Your task to perform on an android device: Is it going to rain this weekend? Image 0: 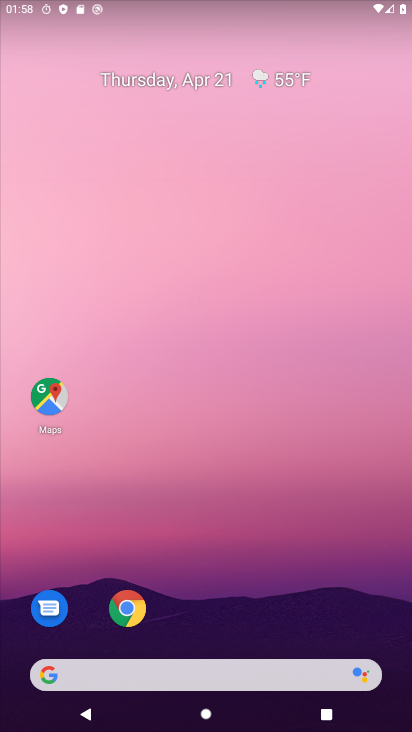
Step 0: click (145, 610)
Your task to perform on an android device: Is it going to rain this weekend? Image 1: 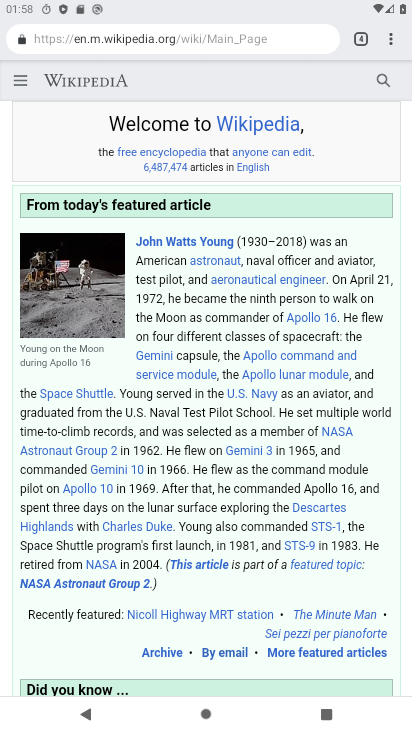
Step 1: click (364, 40)
Your task to perform on an android device: Is it going to rain this weekend? Image 2: 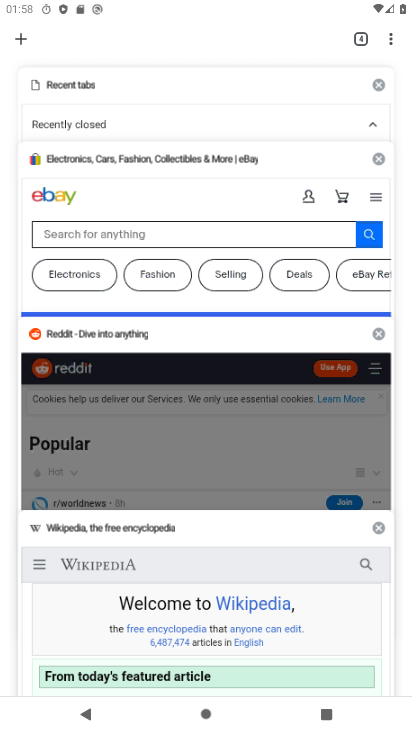
Step 2: click (20, 36)
Your task to perform on an android device: Is it going to rain this weekend? Image 3: 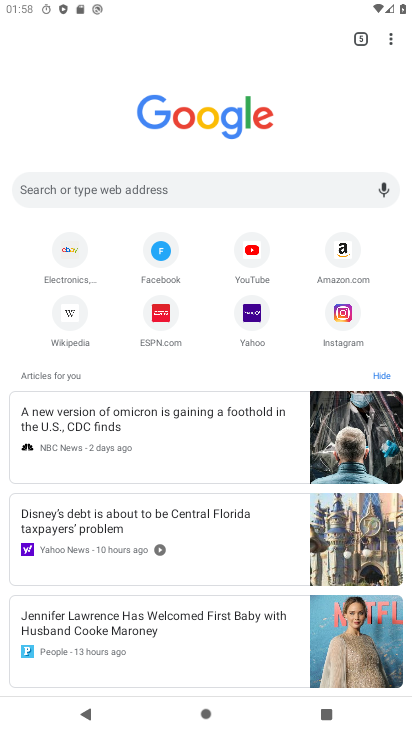
Step 3: click (102, 192)
Your task to perform on an android device: Is it going to rain this weekend? Image 4: 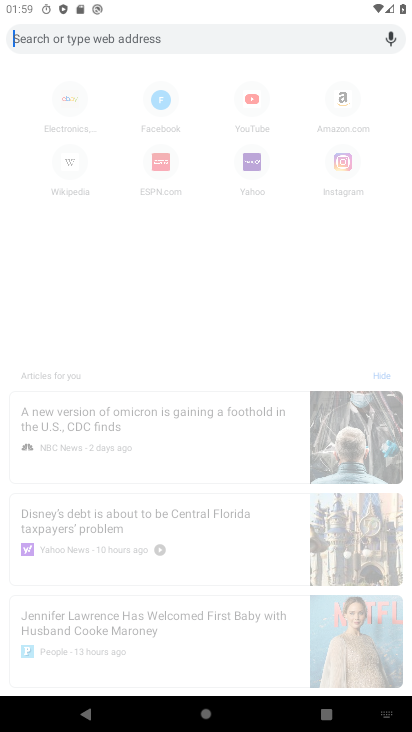
Step 4: type "is it going to rain this weekend"
Your task to perform on an android device: Is it going to rain this weekend? Image 5: 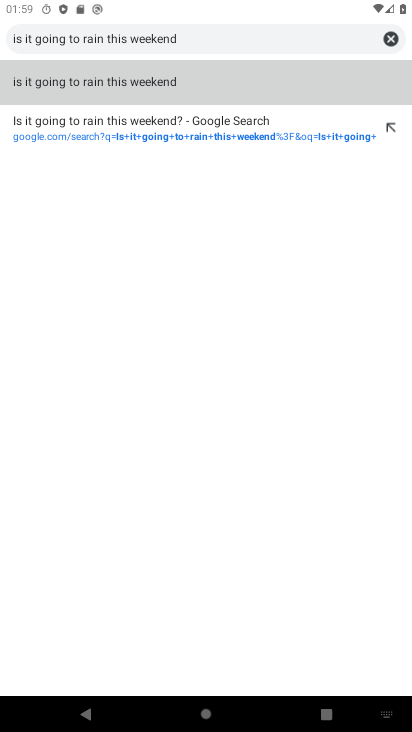
Step 5: click (159, 130)
Your task to perform on an android device: Is it going to rain this weekend? Image 6: 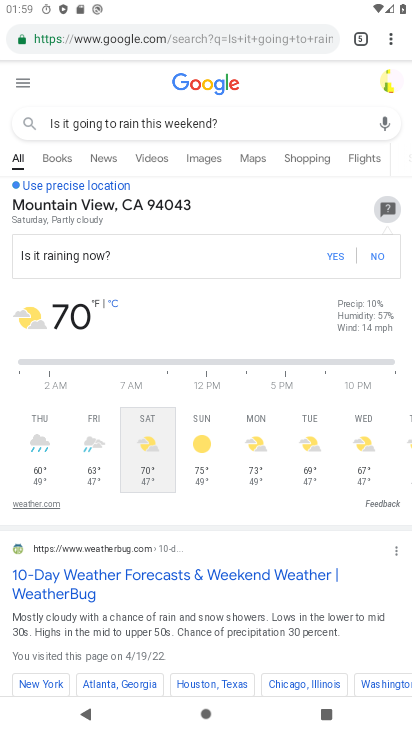
Step 6: task complete